Your task to perform on an android device: open device folders in google photos Image 0: 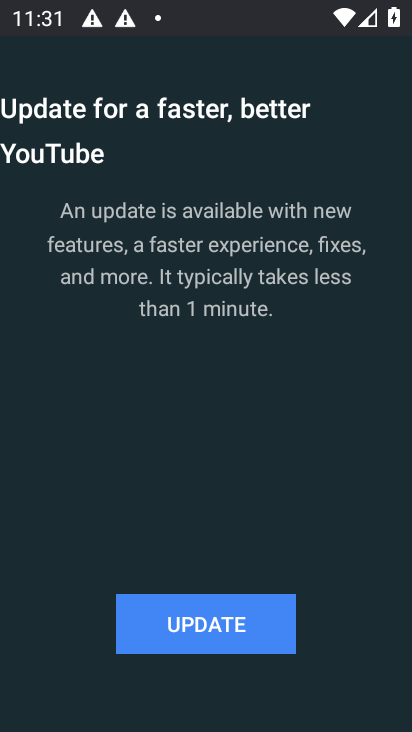
Step 0: task impossible